Your task to perform on an android device: change notification settings in the gmail app Image 0: 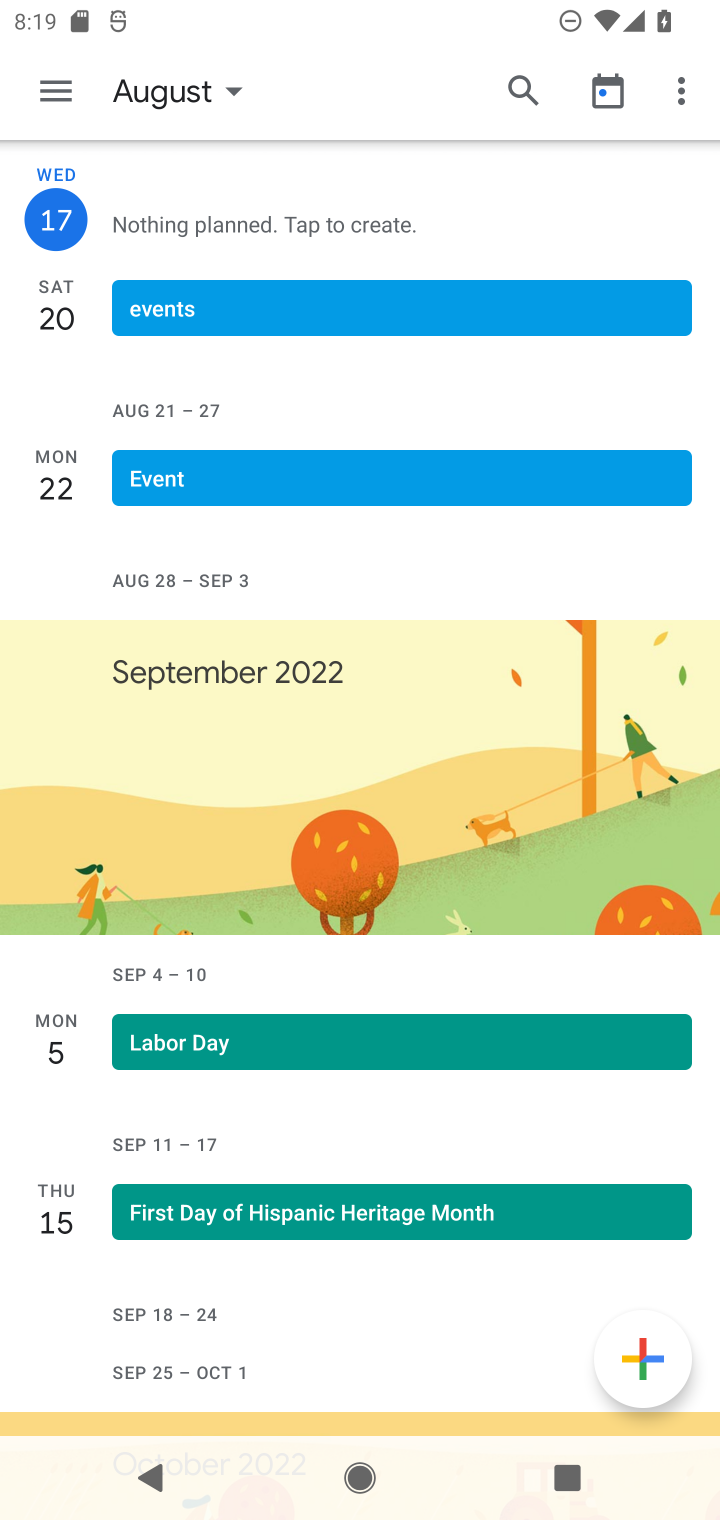
Step 0: press home button
Your task to perform on an android device: change notification settings in the gmail app Image 1: 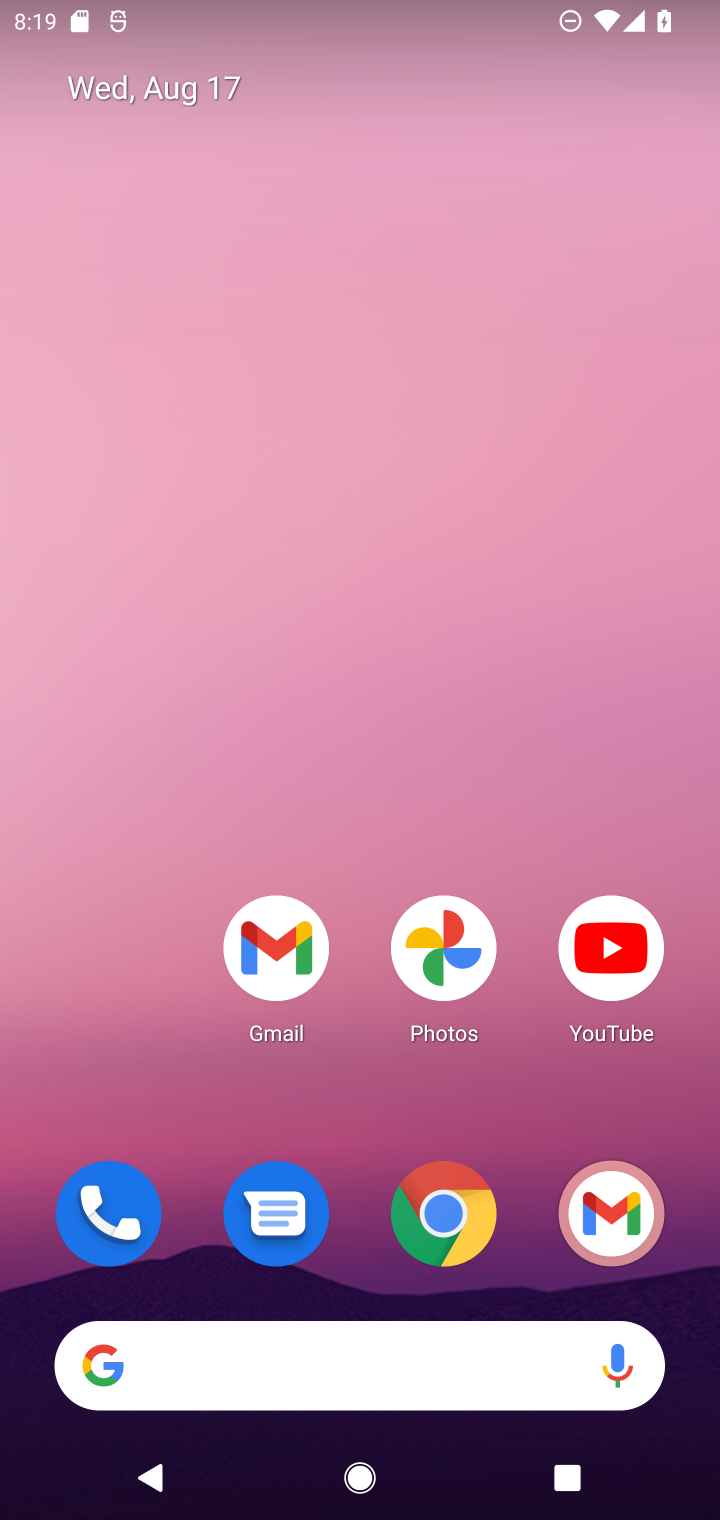
Step 1: drag from (375, 1290) to (403, 318)
Your task to perform on an android device: change notification settings in the gmail app Image 2: 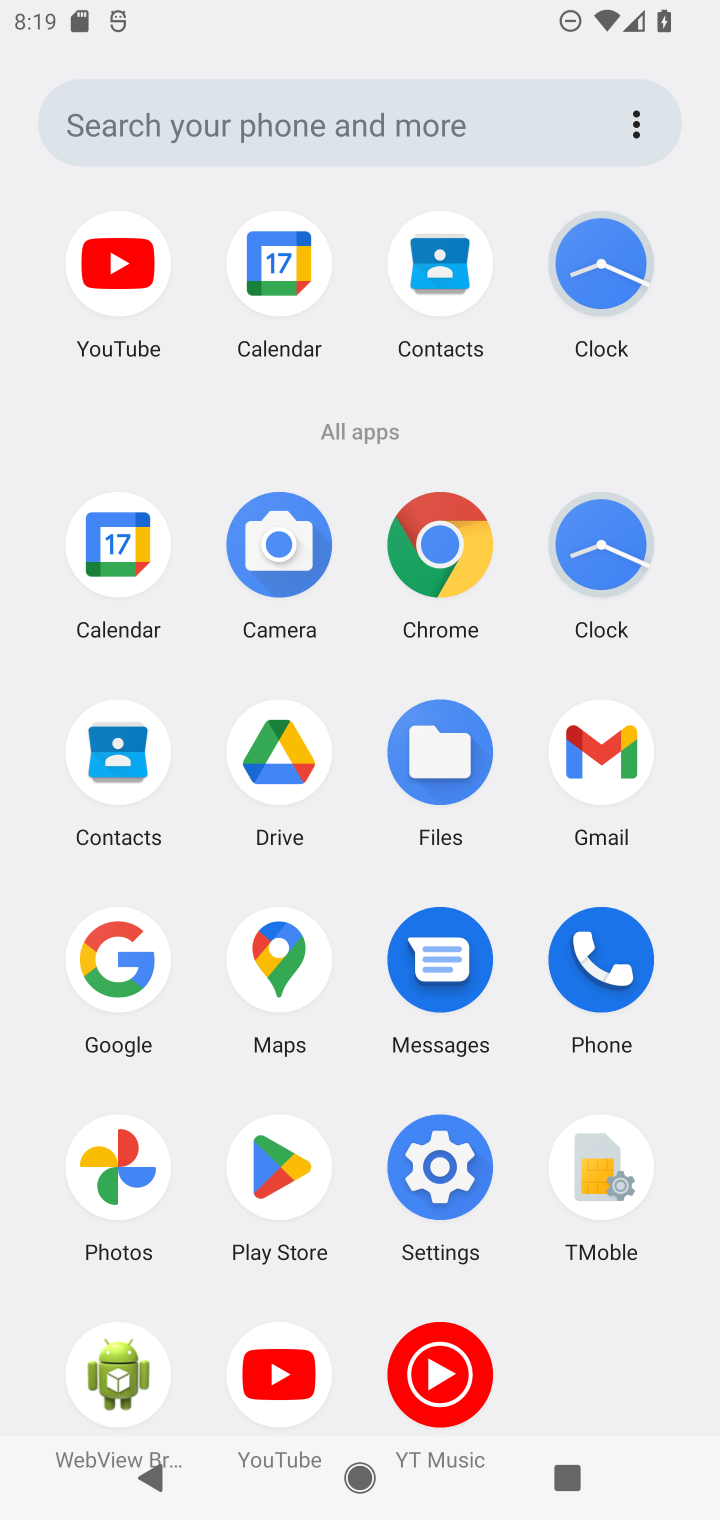
Step 2: click (417, 1142)
Your task to perform on an android device: change notification settings in the gmail app Image 3: 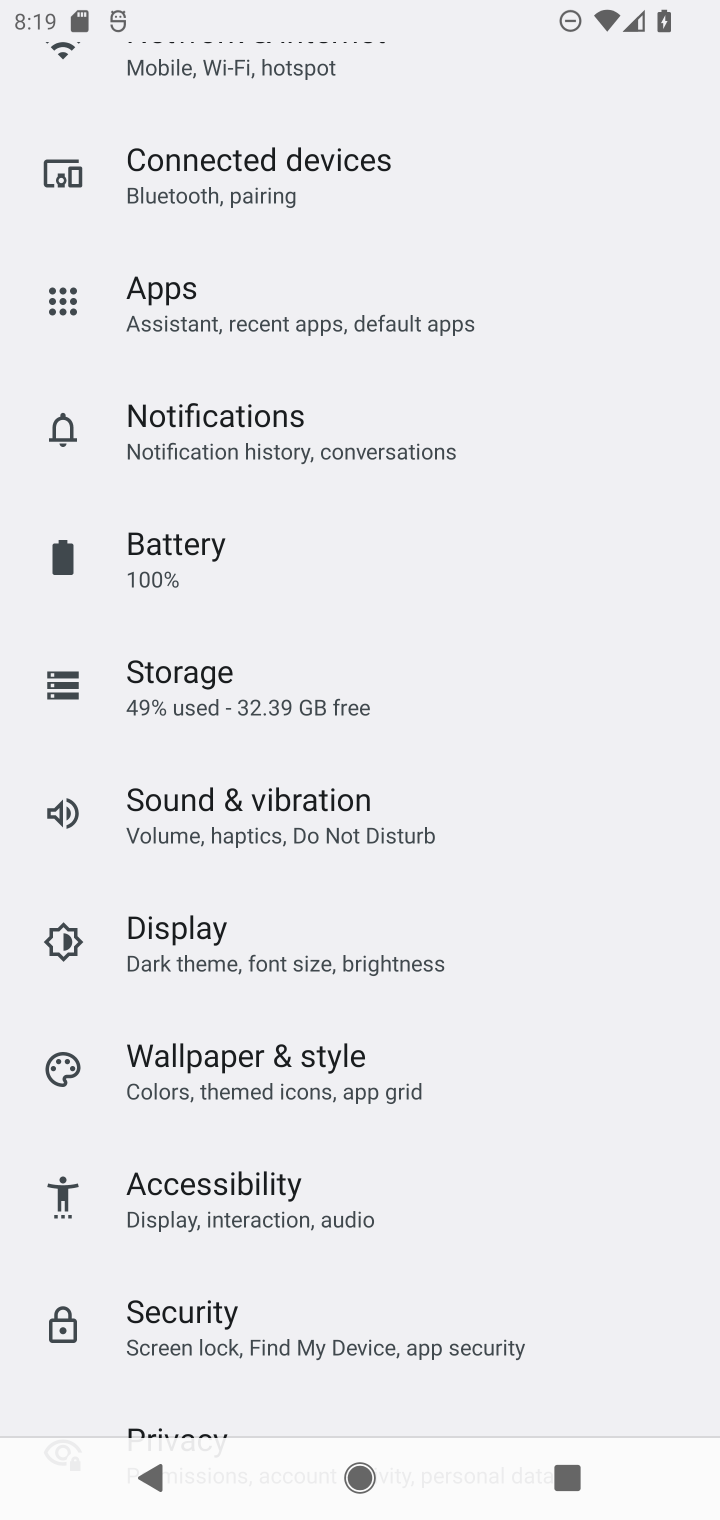
Step 3: click (447, 464)
Your task to perform on an android device: change notification settings in the gmail app Image 4: 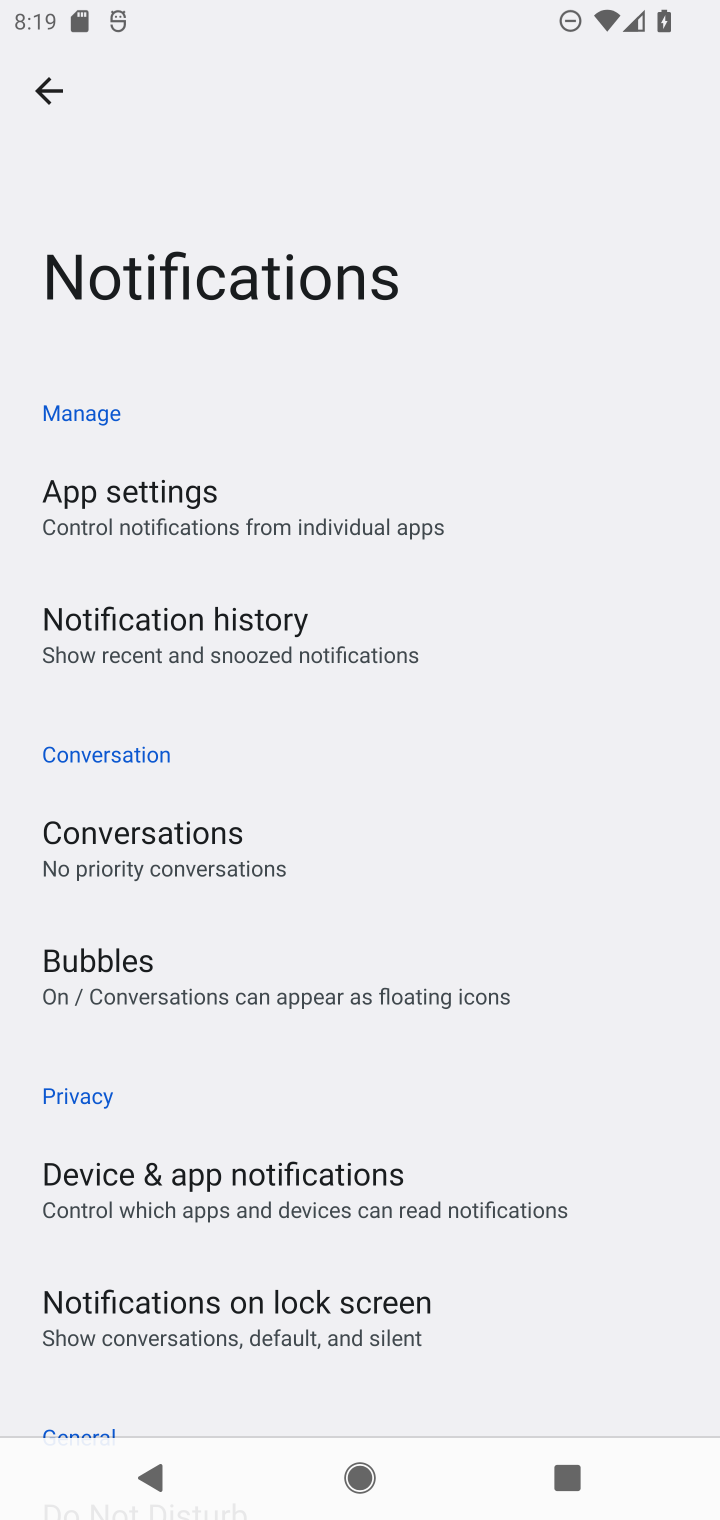
Step 4: task complete